Your task to perform on an android device: all mails in gmail Image 0: 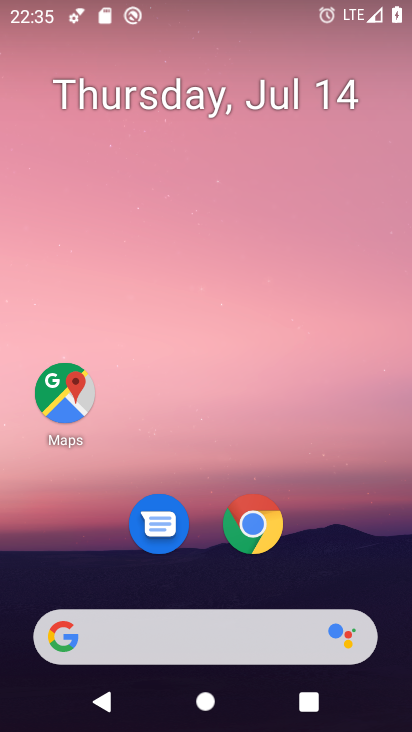
Step 0: drag from (202, 426) to (232, 92)
Your task to perform on an android device: all mails in gmail Image 1: 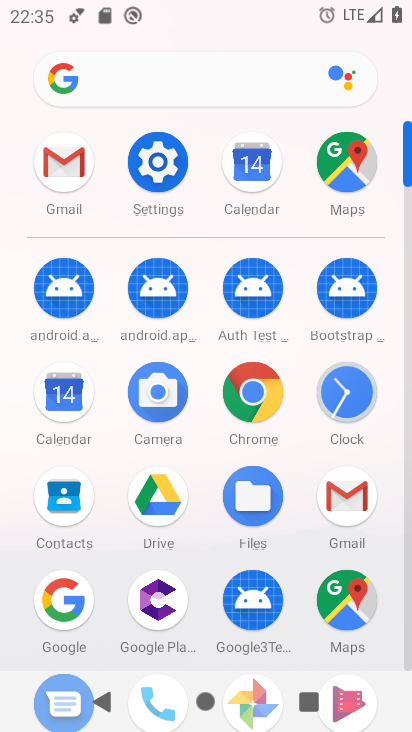
Step 1: click (77, 167)
Your task to perform on an android device: all mails in gmail Image 2: 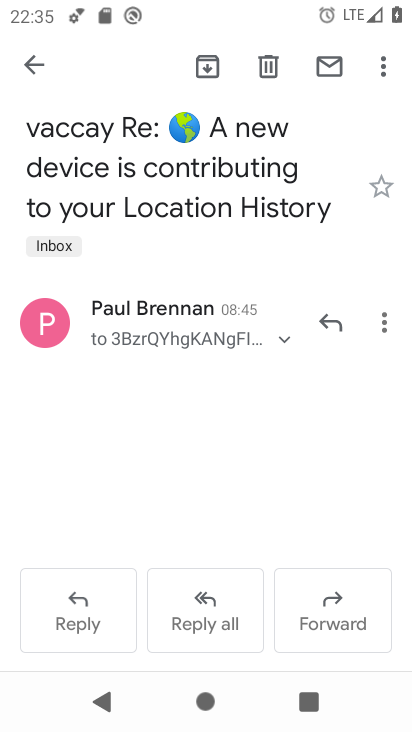
Step 2: click (43, 64)
Your task to perform on an android device: all mails in gmail Image 3: 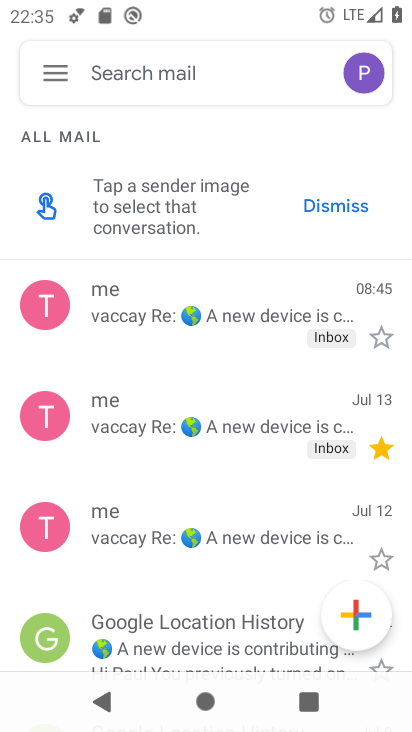
Step 3: click (53, 75)
Your task to perform on an android device: all mails in gmail Image 4: 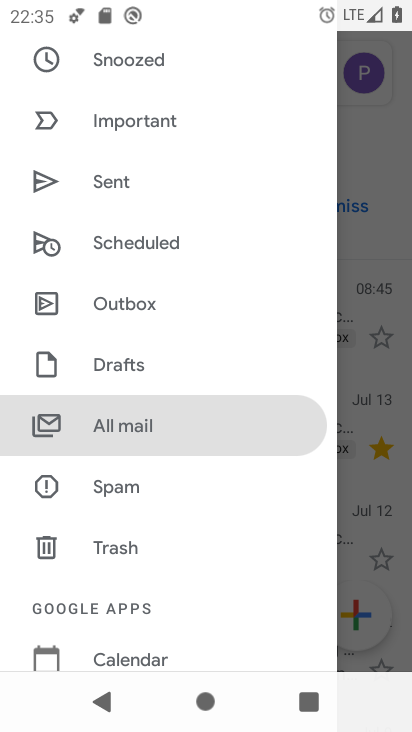
Step 4: click (105, 433)
Your task to perform on an android device: all mails in gmail Image 5: 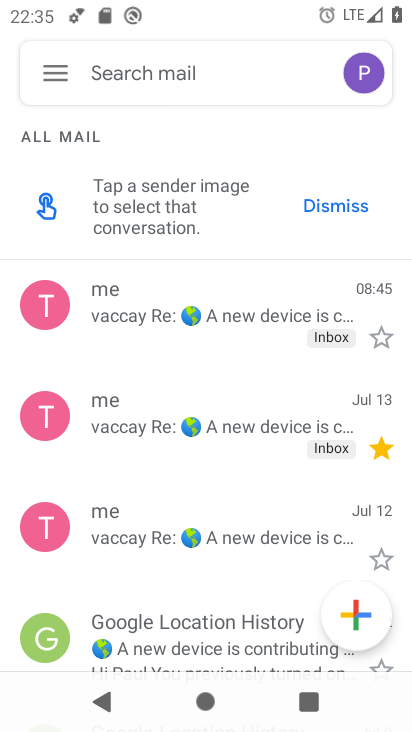
Step 5: task complete